Your task to perform on an android device: open app "Mercado Libre" (install if not already installed) Image 0: 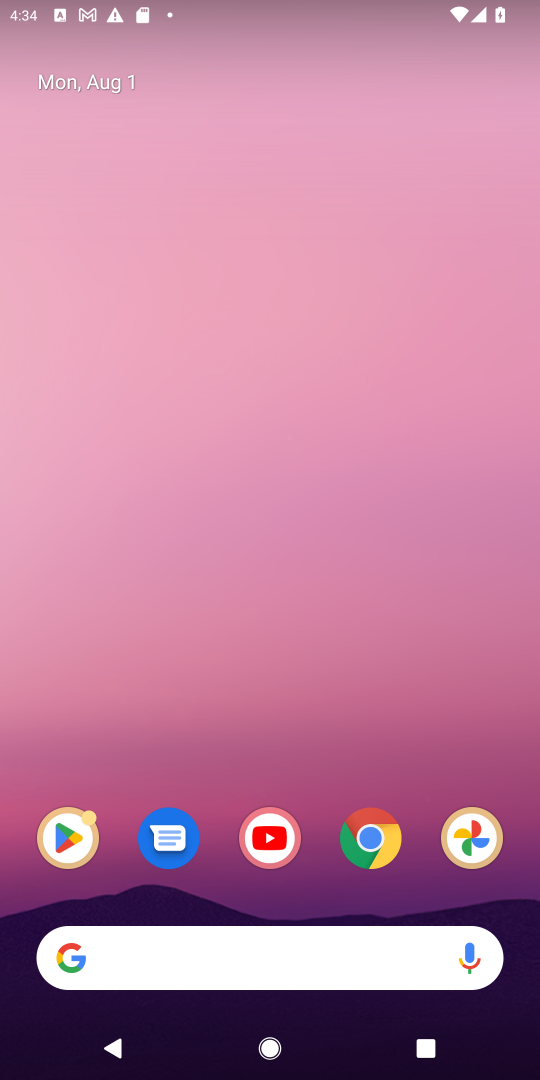
Step 0: click (69, 840)
Your task to perform on an android device: open app "Mercado Libre" (install if not already installed) Image 1: 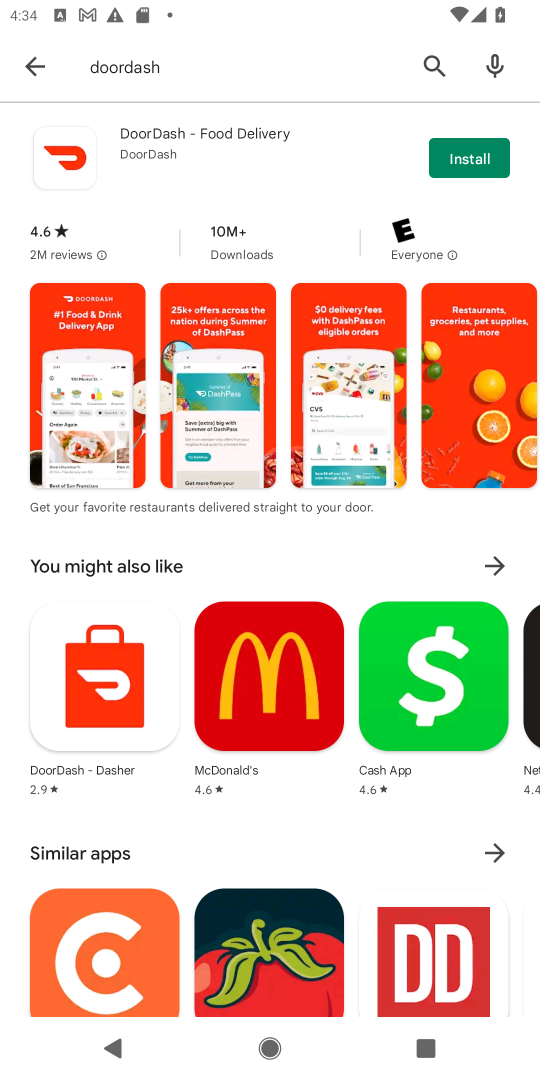
Step 1: click (437, 60)
Your task to perform on an android device: open app "Mercado Libre" (install if not already installed) Image 2: 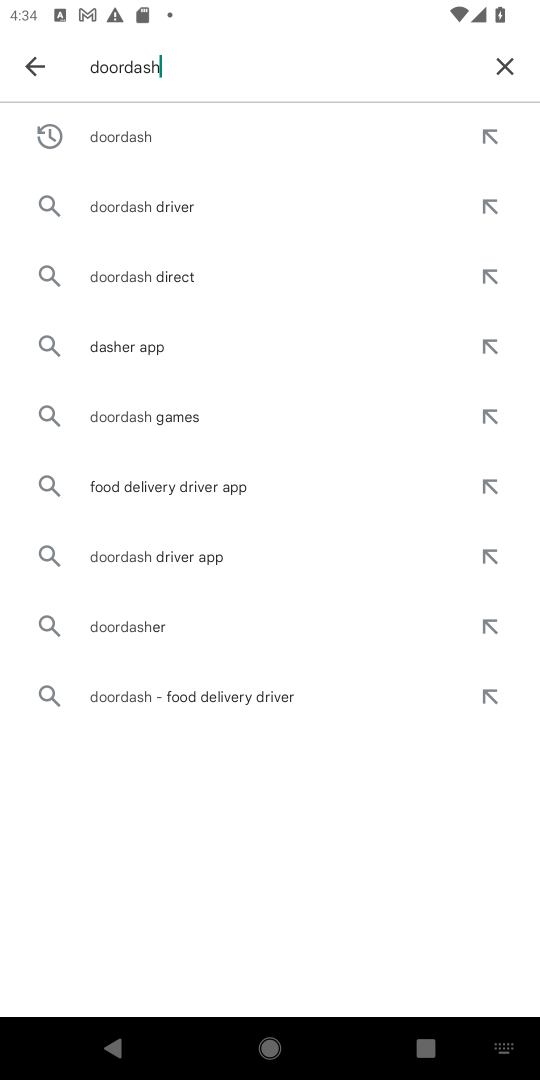
Step 2: click (507, 63)
Your task to perform on an android device: open app "Mercado Libre" (install if not already installed) Image 3: 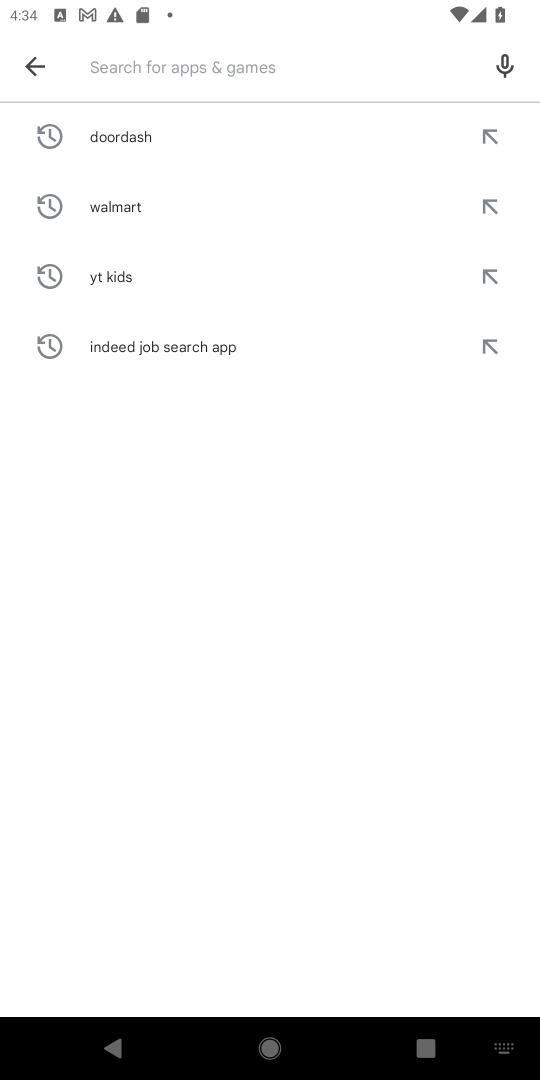
Step 3: type "mercado libre"
Your task to perform on an android device: open app "Mercado Libre" (install if not already installed) Image 4: 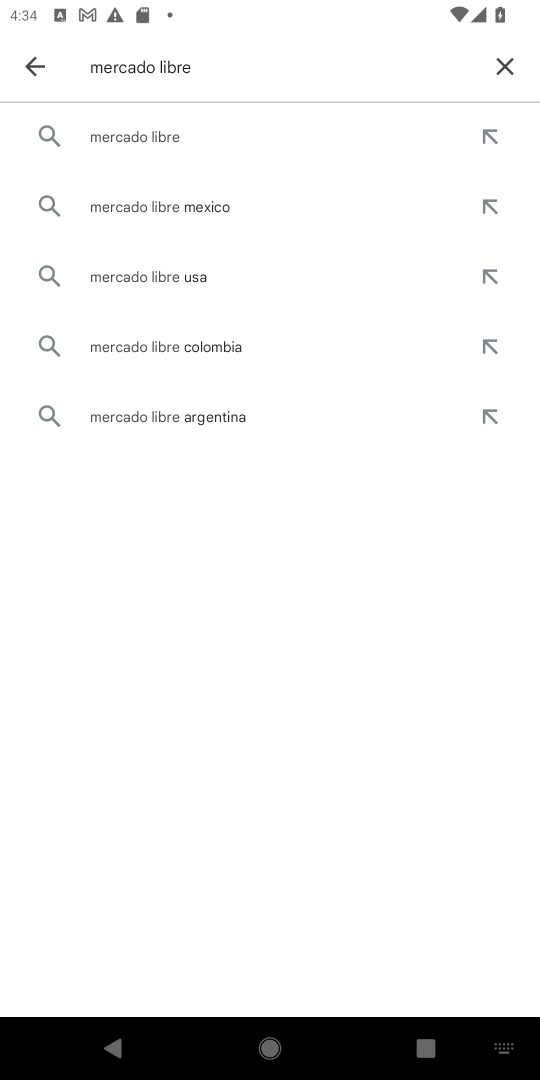
Step 4: click (179, 132)
Your task to perform on an android device: open app "Mercado Libre" (install if not already installed) Image 5: 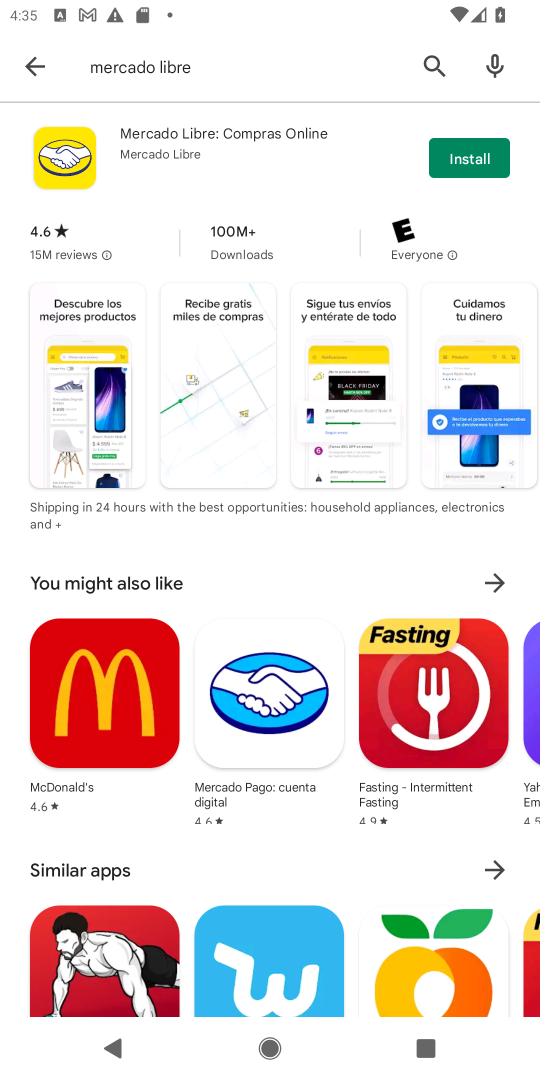
Step 5: click (427, 149)
Your task to perform on an android device: open app "Mercado Libre" (install if not already installed) Image 6: 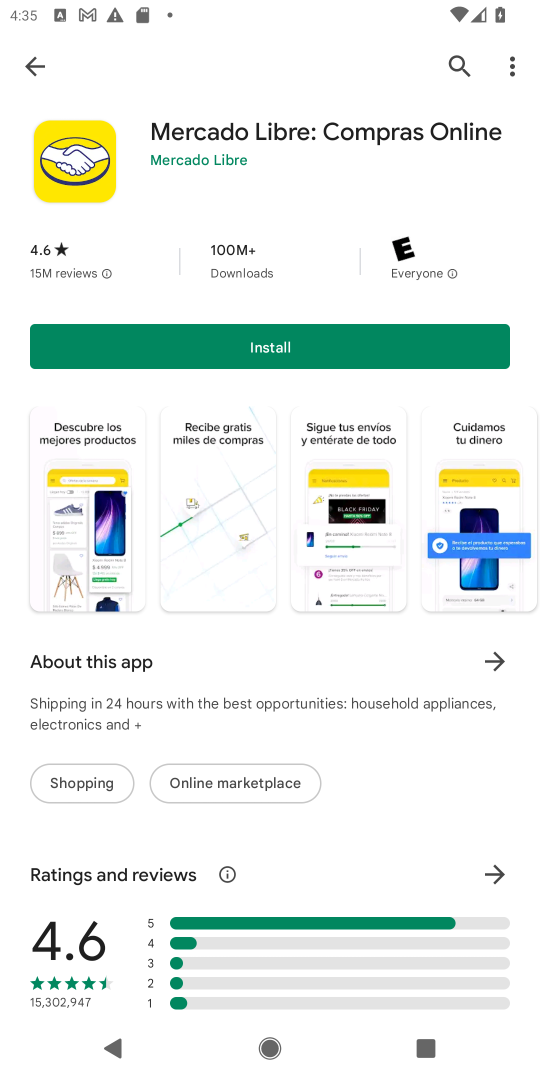
Step 6: click (264, 348)
Your task to perform on an android device: open app "Mercado Libre" (install if not already installed) Image 7: 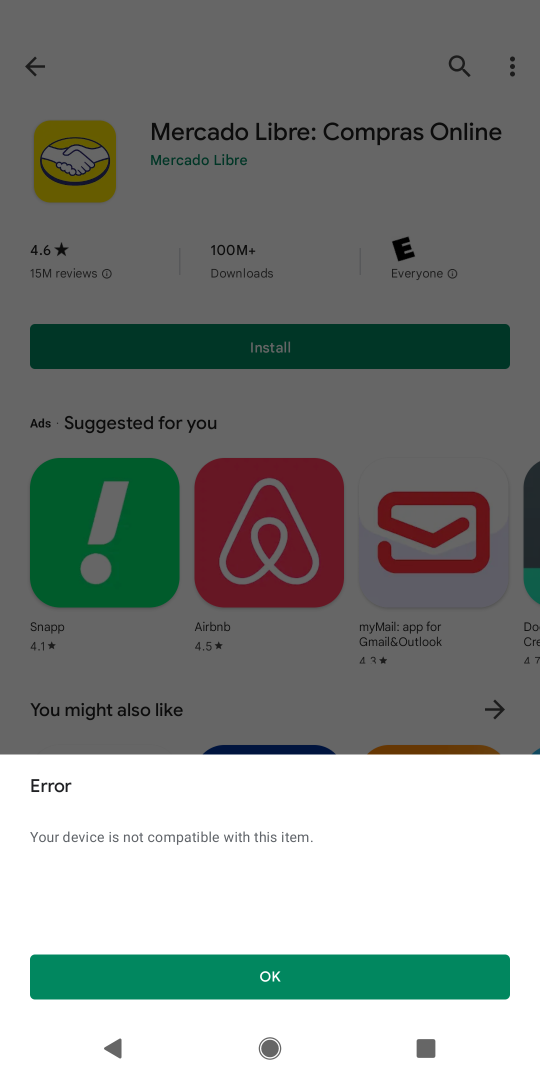
Step 7: click (348, 687)
Your task to perform on an android device: open app "Mercado Libre" (install if not already installed) Image 8: 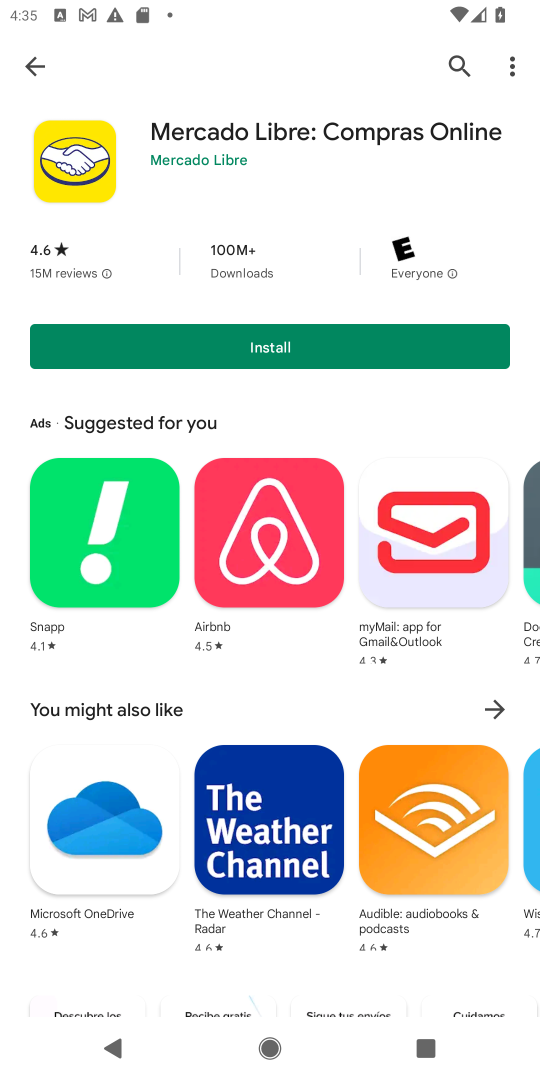
Step 8: task complete